Your task to perform on an android device: Add "corsair k70" to the cart on walmart.com, then select checkout. Image 0: 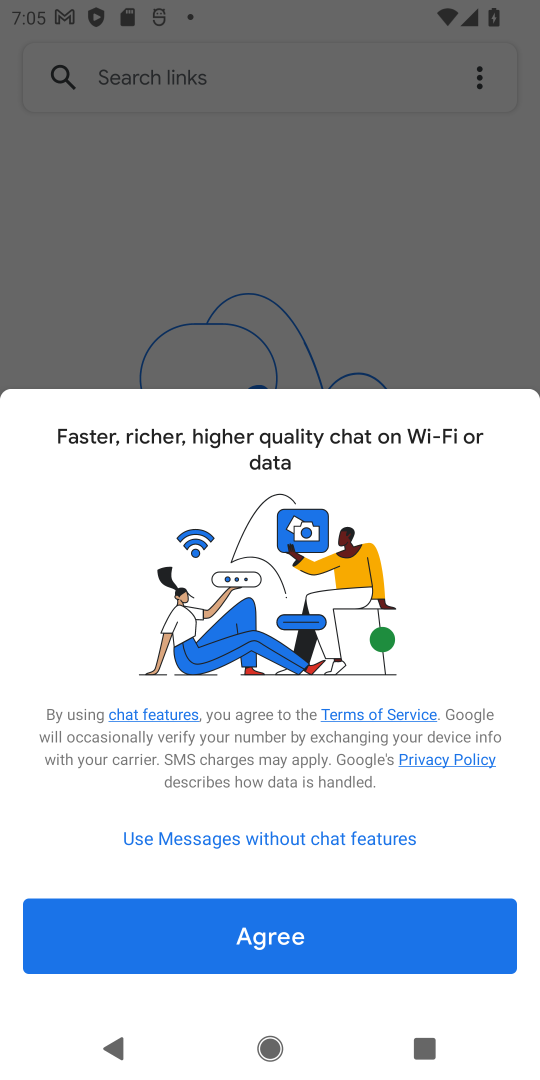
Step 0: press home button
Your task to perform on an android device: Add "corsair k70" to the cart on walmart.com, then select checkout. Image 1: 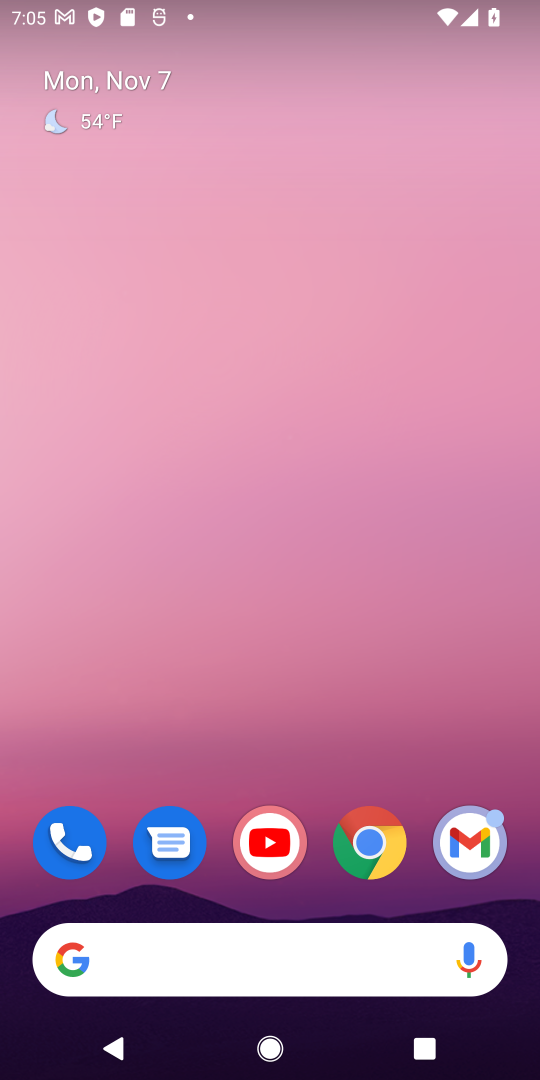
Step 1: click (379, 852)
Your task to perform on an android device: Add "corsair k70" to the cart on walmart.com, then select checkout. Image 2: 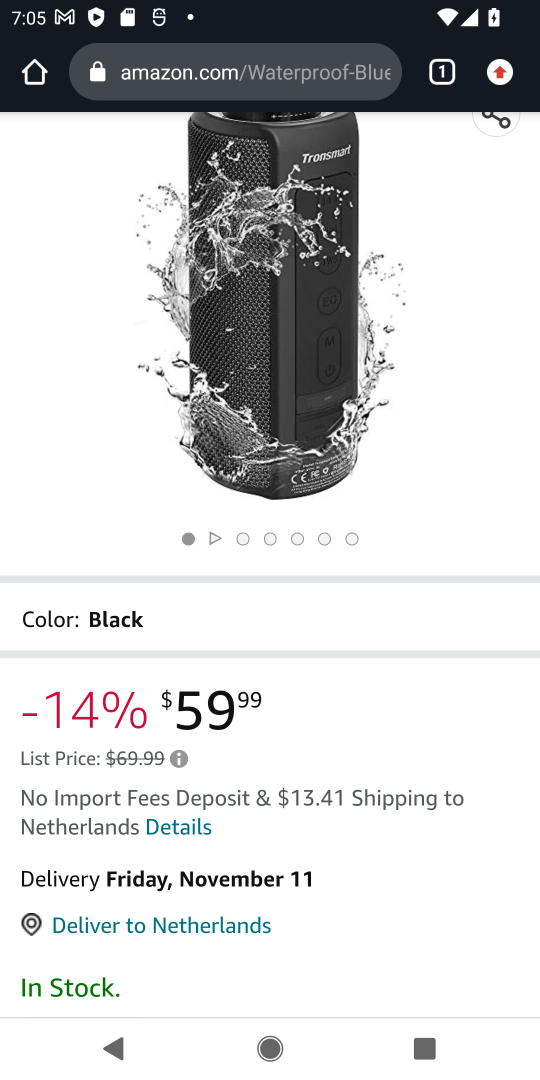
Step 2: click (312, 64)
Your task to perform on an android device: Add "corsair k70" to the cart on walmart.com, then select checkout. Image 3: 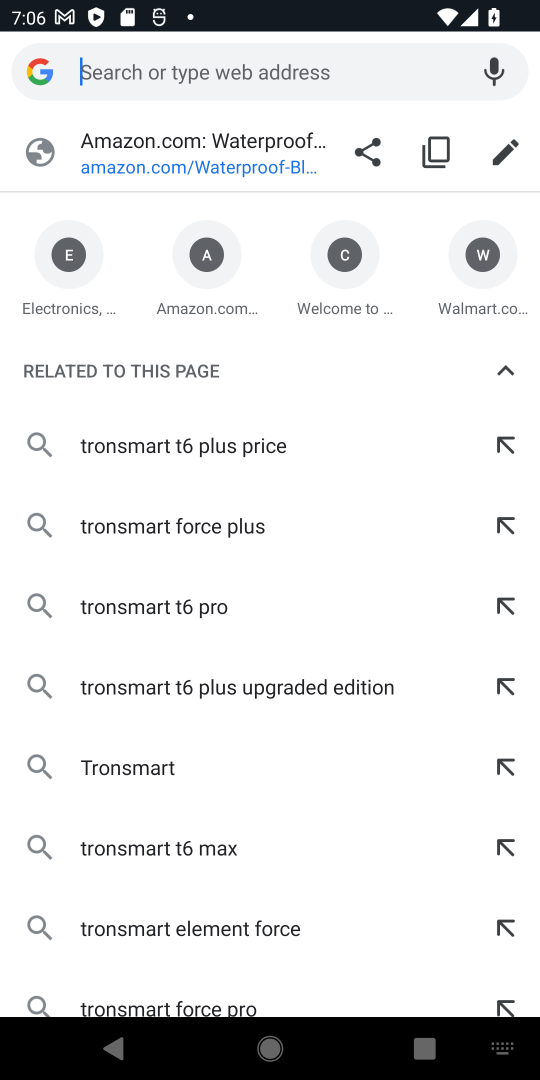
Step 3: click (466, 303)
Your task to perform on an android device: Add "corsair k70" to the cart on walmart.com, then select checkout. Image 4: 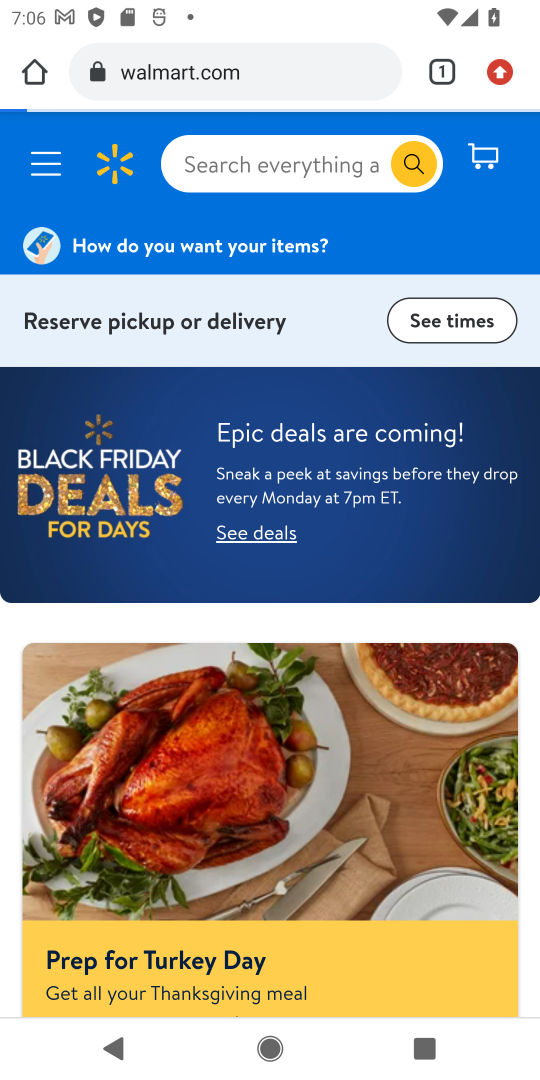
Step 4: click (303, 161)
Your task to perform on an android device: Add "corsair k70" to the cart on walmart.com, then select checkout. Image 5: 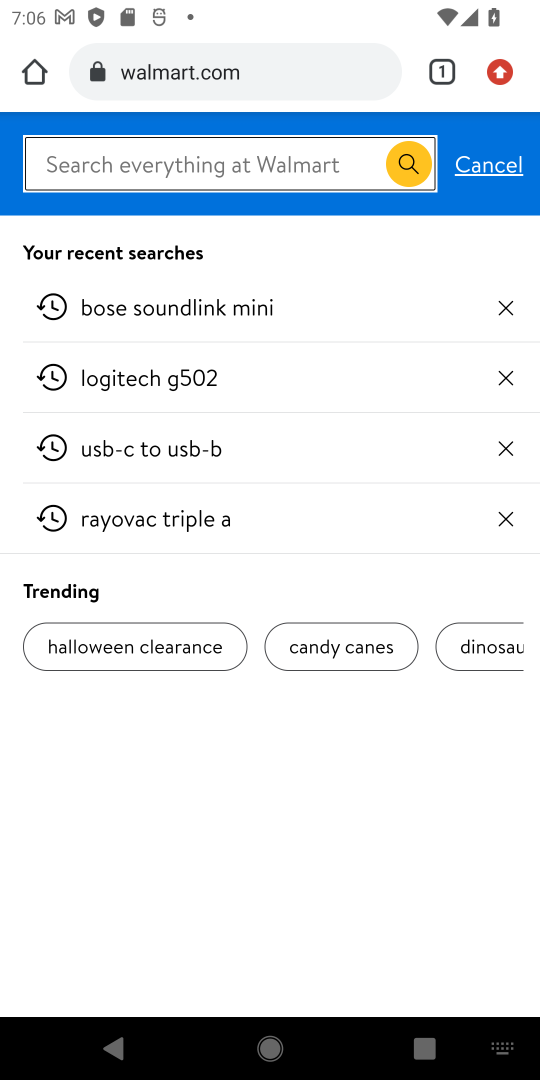
Step 5: press enter
Your task to perform on an android device: Add "corsair k70" to the cart on walmart.com, then select checkout. Image 6: 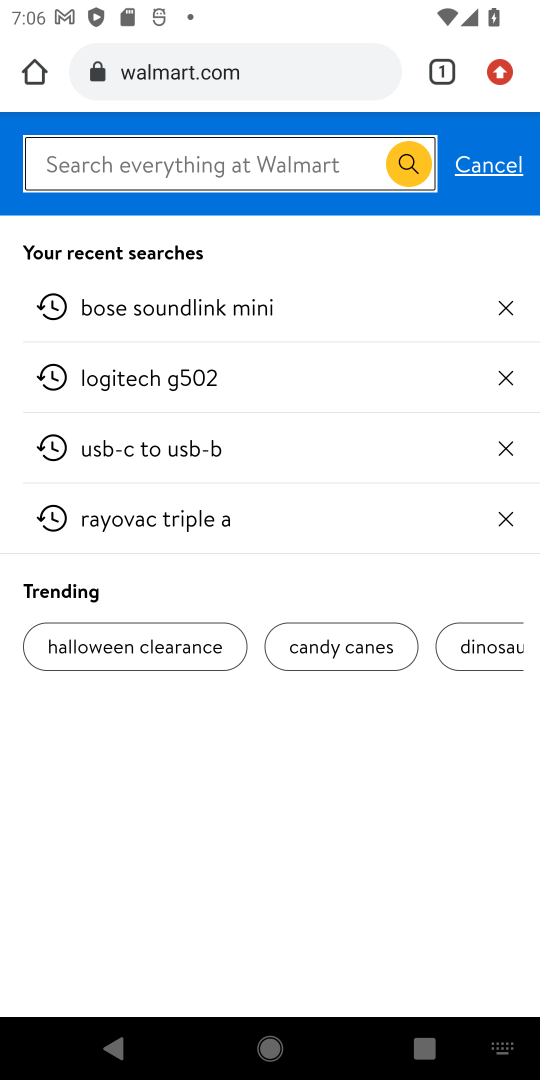
Step 6: type "corsair k70"
Your task to perform on an android device: Add "corsair k70" to the cart on walmart.com, then select checkout. Image 7: 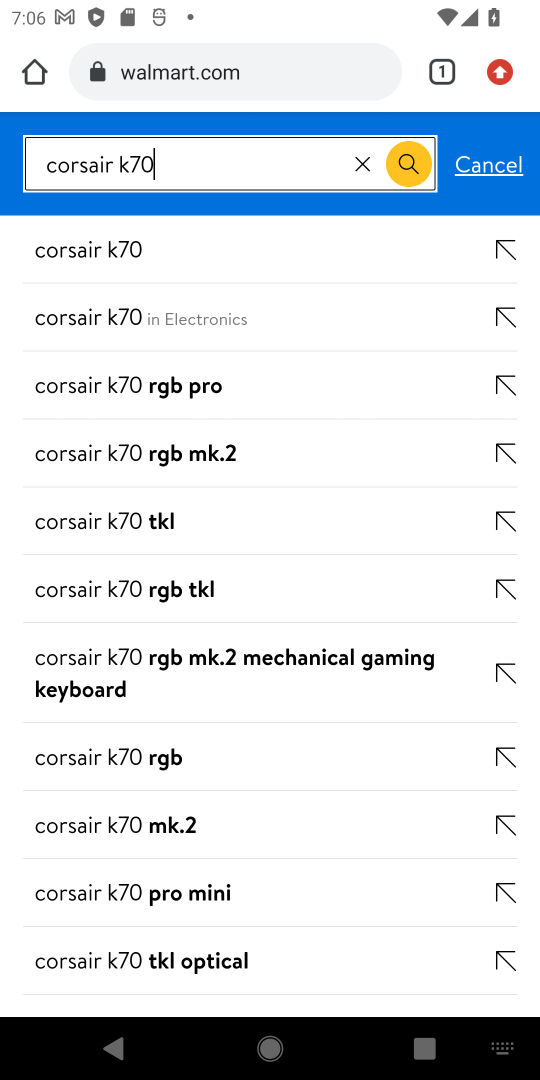
Step 7: click (79, 250)
Your task to perform on an android device: Add "corsair k70" to the cart on walmart.com, then select checkout. Image 8: 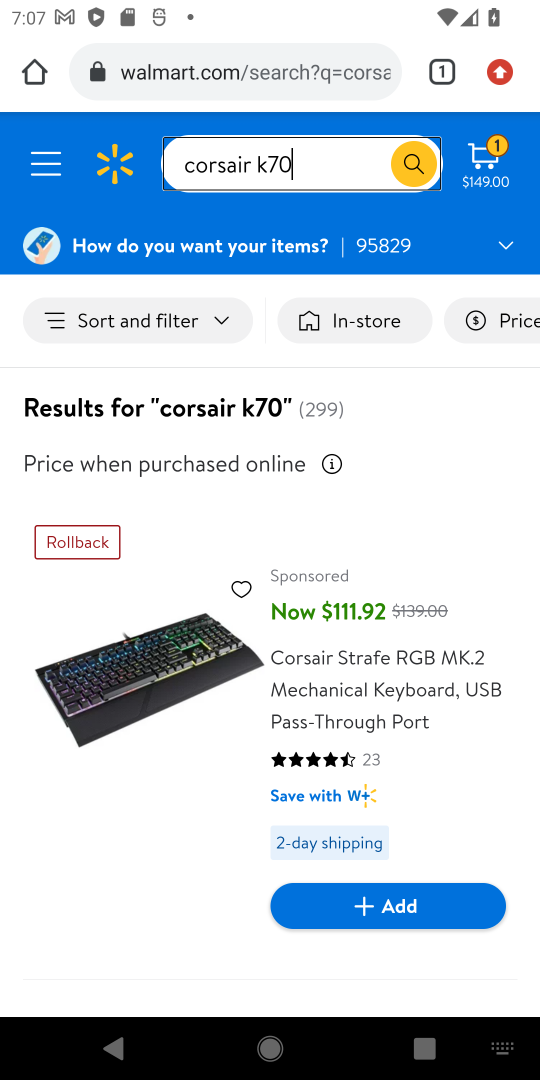
Step 8: drag from (395, 814) to (376, 408)
Your task to perform on an android device: Add "corsair k70" to the cart on walmart.com, then select checkout. Image 9: 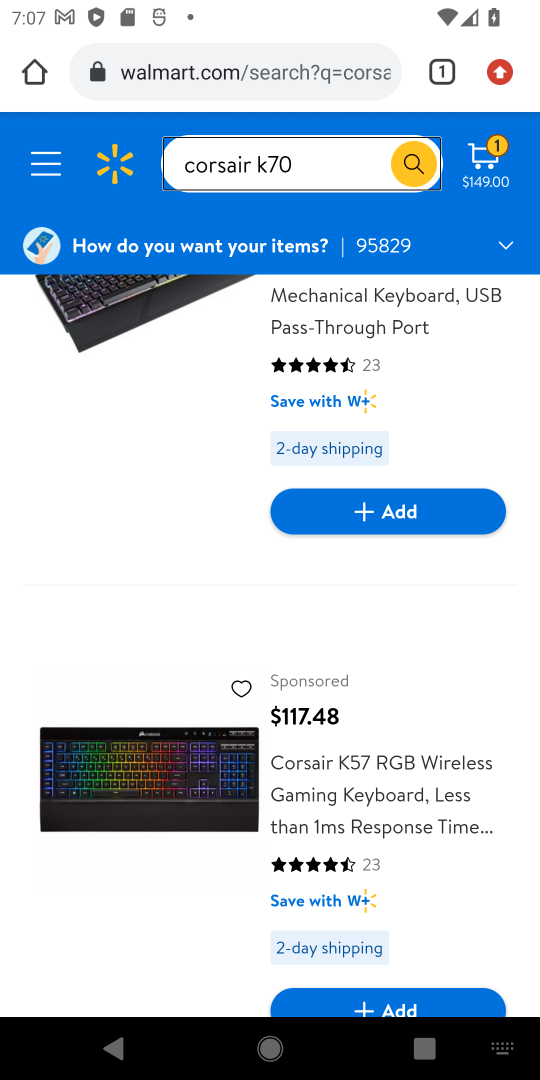
Step 9: drag from (324, 887) to (411, 385)
Your task to perform on an android device: Add "corsair k70" to the cart on walmart.com, then select checkout. Image 10: 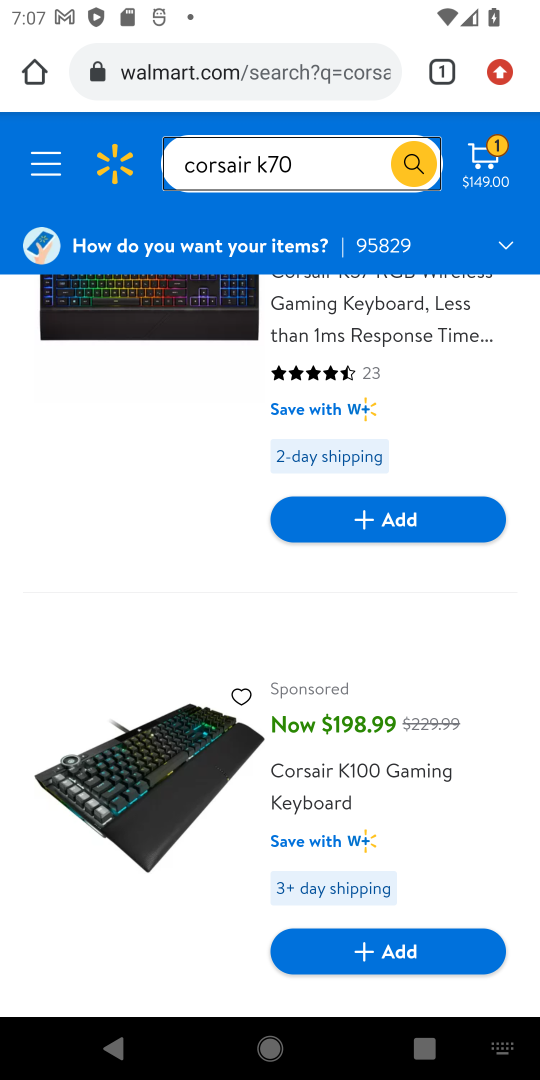
Step 10: drag from (358, 898) to (320, 368)
Your task to perform on an android device: Add "corsair k70" to the cart on walmart.com, then select checkout. Image 11: 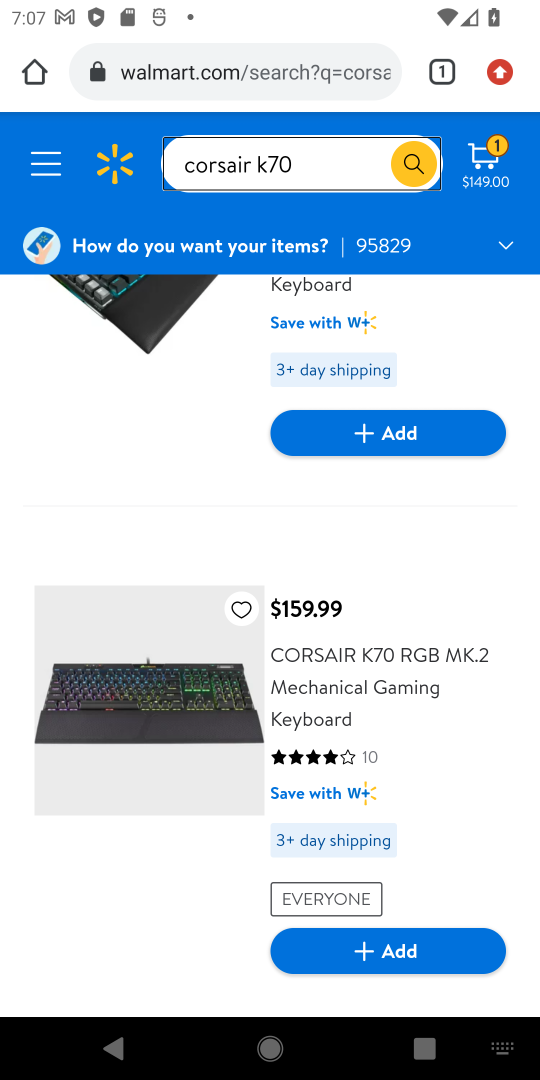
Step 11: click (410, 949)
Your task to perform on an android device: Add "corsair k70" to the cart on walmart.com, then select checkout. Image 12: 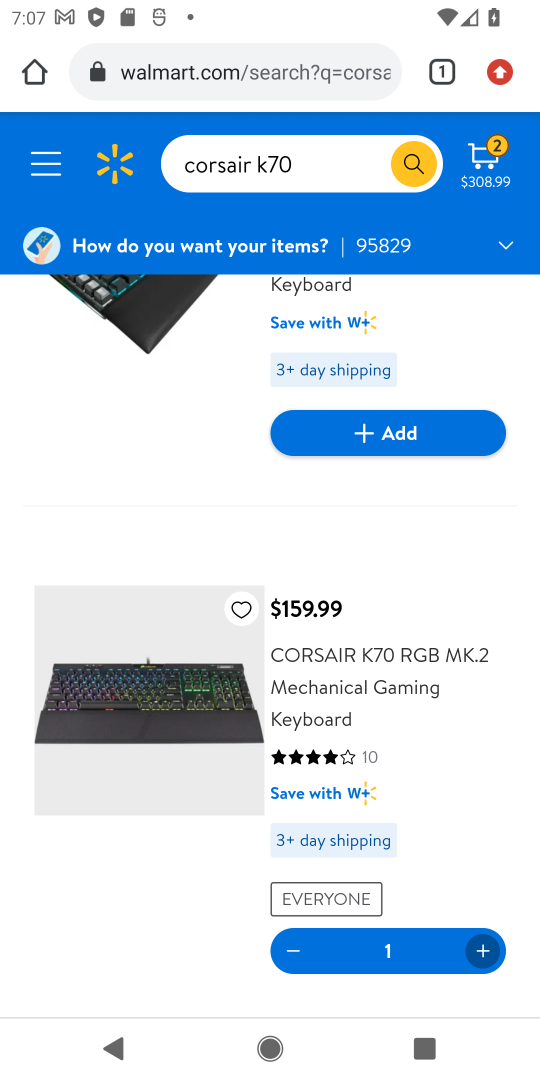
Step 12: click (471, 165)
Your task to perform on an android device: Add "corsair k70" to the cart on walmart.com, then select checkout. Image 13: 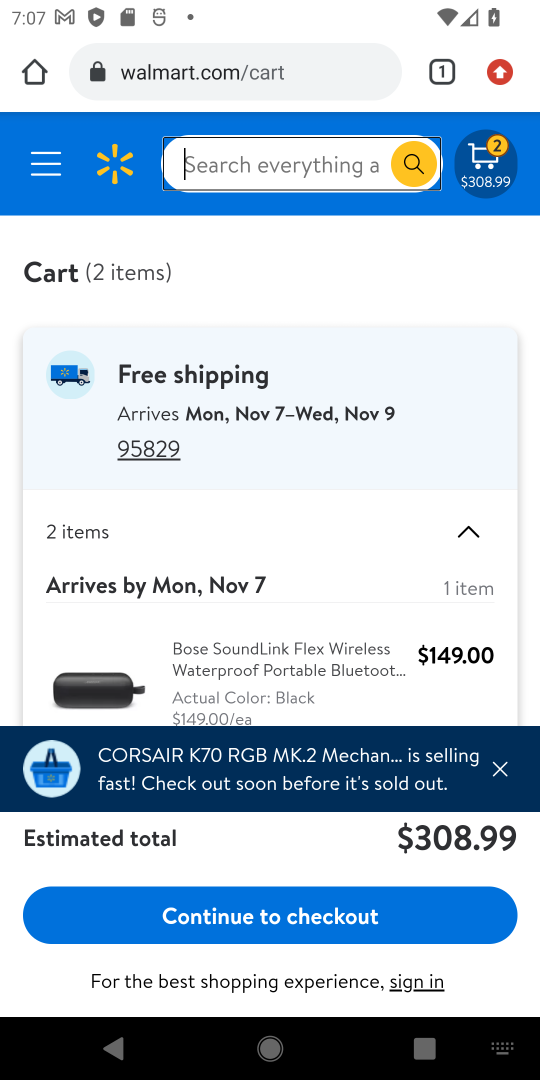
Step 13: drag from (316, 682) to (329, 367)
Your task to perform on an android device: Add "corsair k70" to the cart on walmart.com, then select checkout. Image 14: 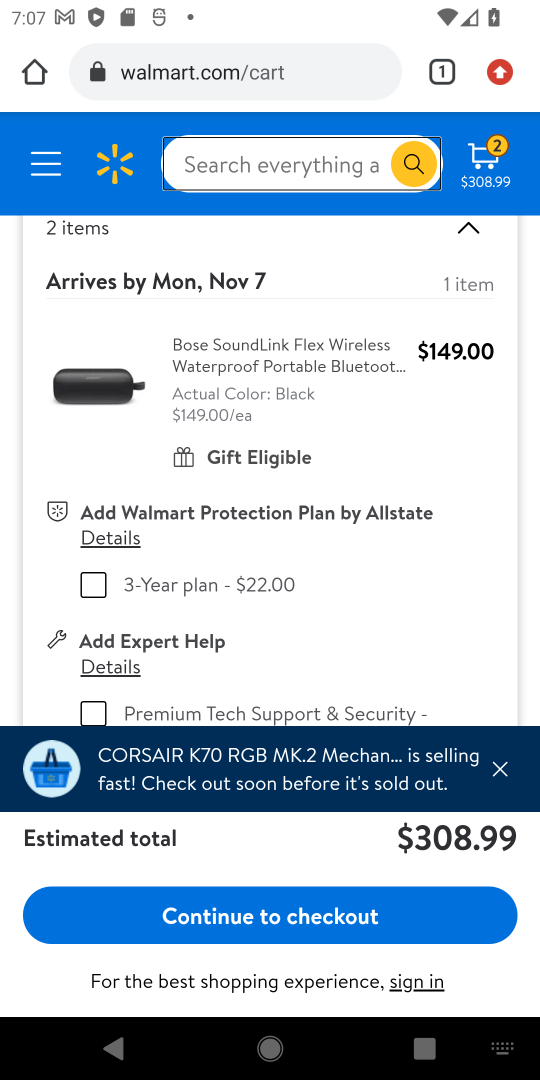
Step 14: drag from (374, 424) to (398, 335)
Your task to perform on an android device: Add "corsair k70" to the cart on walmart.com, then select checkout. Image 15: 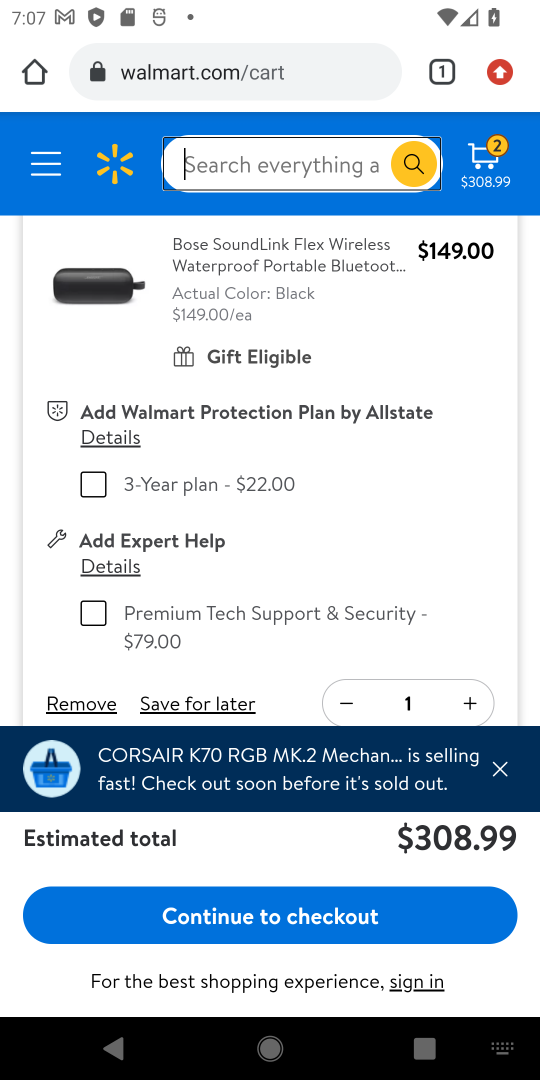
Step 15: drag from (399, 615) to (432, 432)
Your task to perform on an android device: Add "corsair k70" to the cart on walmart.com, then select checkout. Image 16: 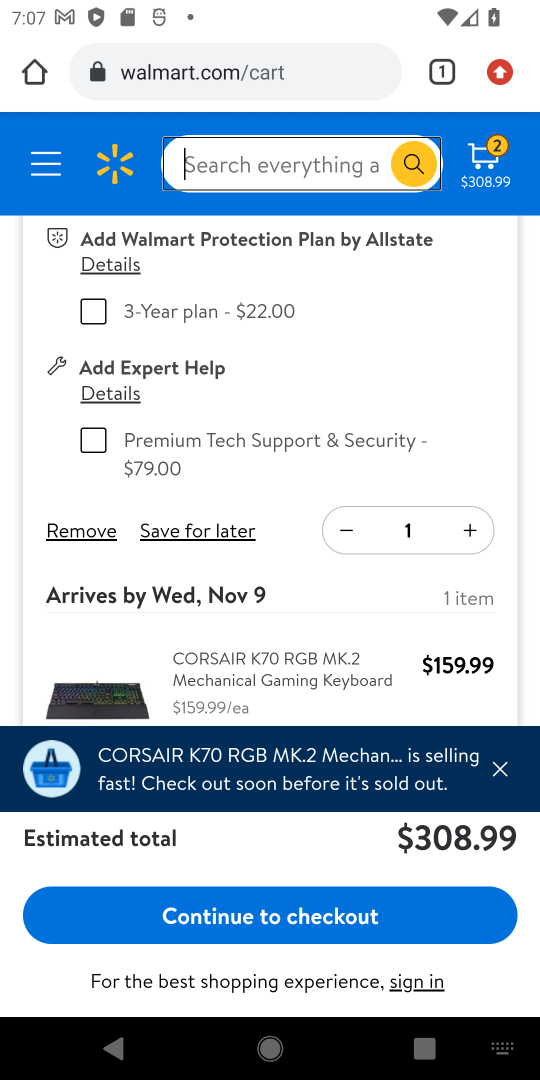
Step 16: click (74, 533)
Your task to perform on an android device: Add "corsair k70" to the cart on walmart.com, then select checkout. Image 17: 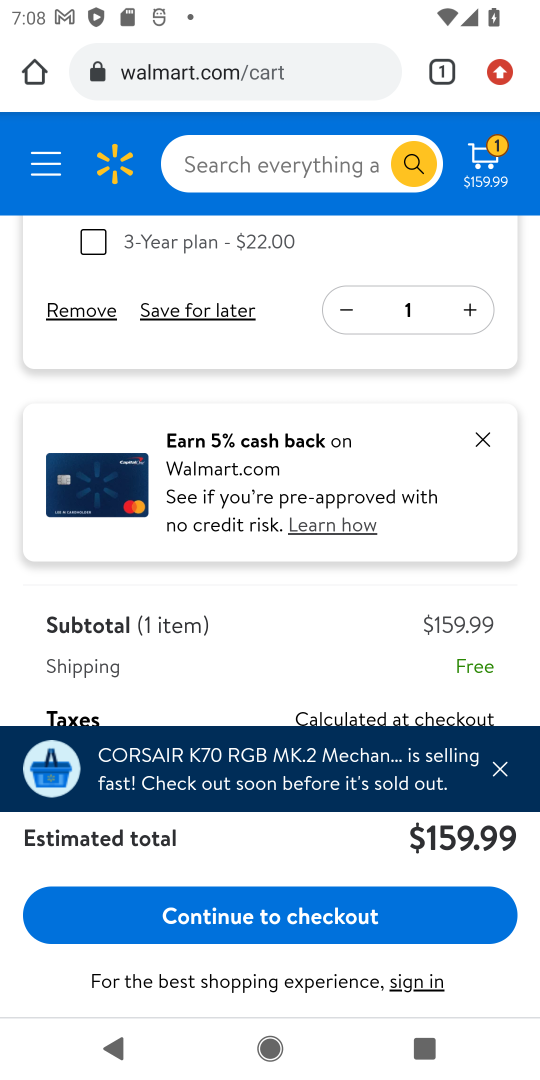
Step 17: click (506, 767)
Your task to perform on an android device: Add "corsair k70" to the cart on walmart.com, then select checkout. Image 18: 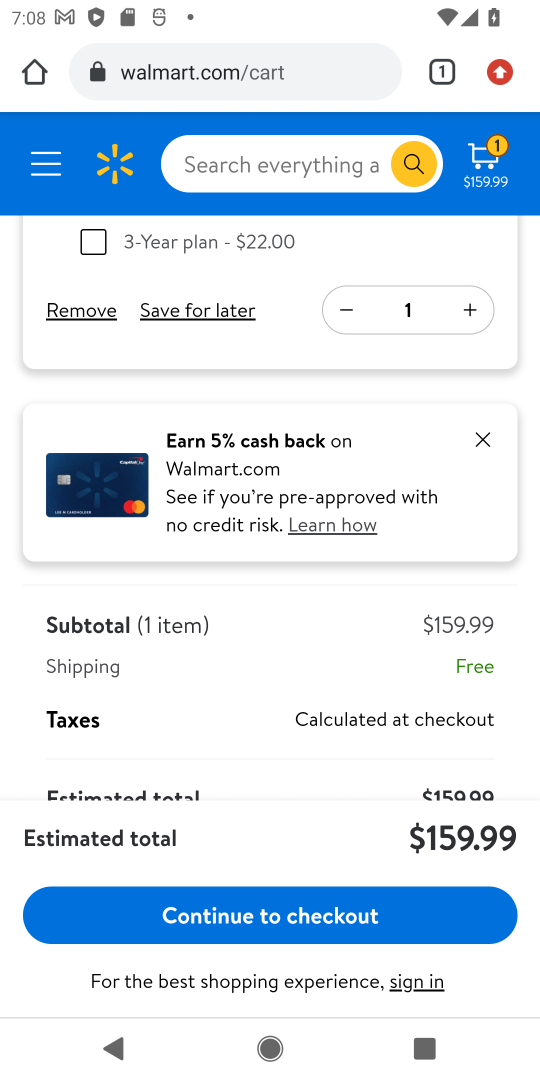
Step 18: drag from (232, 709) to (363, 769)
Your task to perform on an android device: Add "corsair k70" to the cart on walmart.com, then select checkout. Image 19: 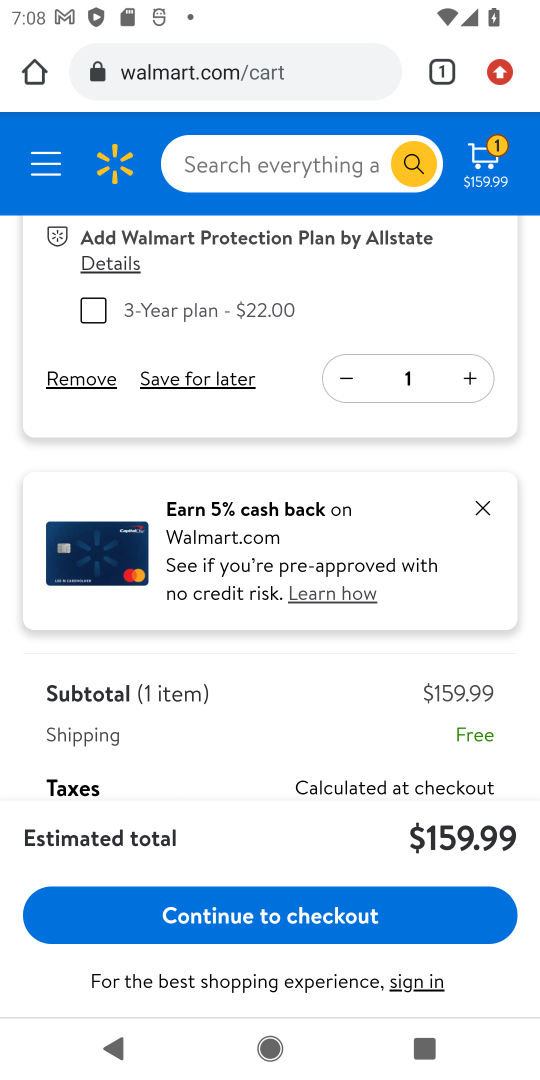
Step 19: drag from (278, 524) to (286, 796)
Your task to perform on an android device: Add "corsair k70" to the cart on walmart.com, then select checkout. Image 20: 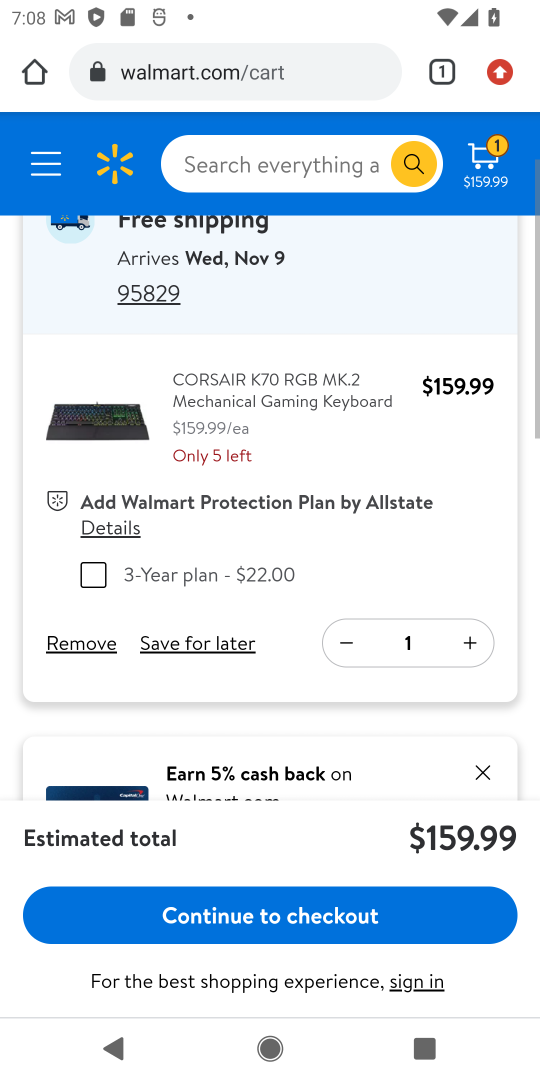
Step 20: drag from (373, 443) to (364, 815)
Your task to perform on an android device: Add "corsair k70" to the cart on walmart.com, then select checkout. Image 21: 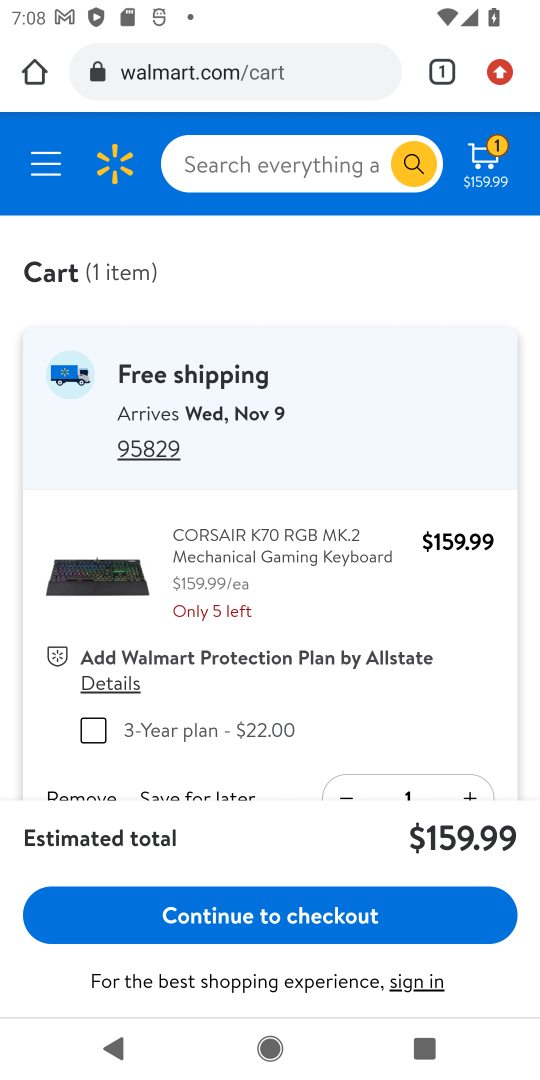
Step 21: drag from (278, 816) to (413, 463)
Your task to perform on an android device: Add "corsair k70" to the cart on walmart.com, then select checkout. Image 22: 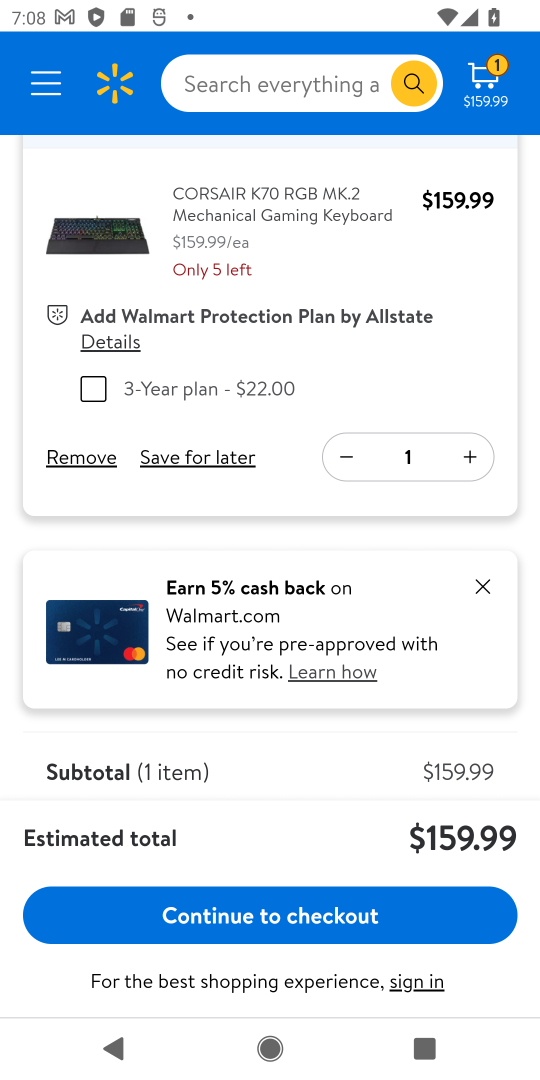
Step 22: click (305, 922)
Your task to perform on an android device: Add "corsair k70" to the cart on walmart.com, then select checkout. Image 23: 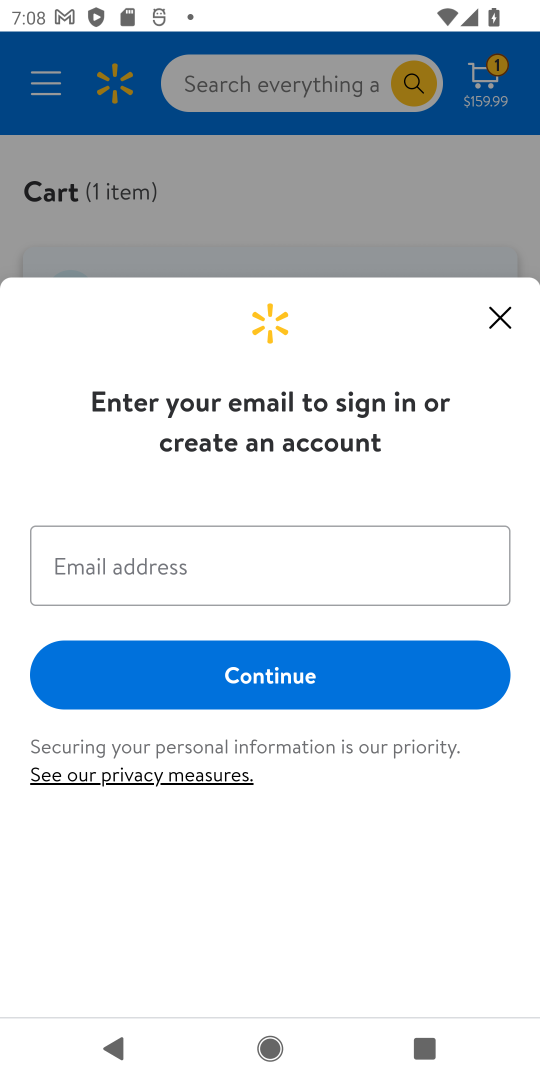
Step 23: task complete